Your task to perform on an android device: turn on showing notifications on the lock screen Image 0: 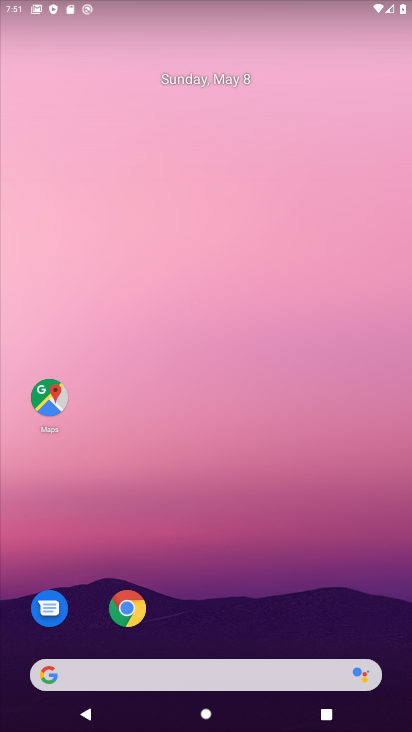
Step 0: drag from (306, 485) to (364, 212)
Your task to perform on an android device: turn on showing notifications on the lock screen Image 1: 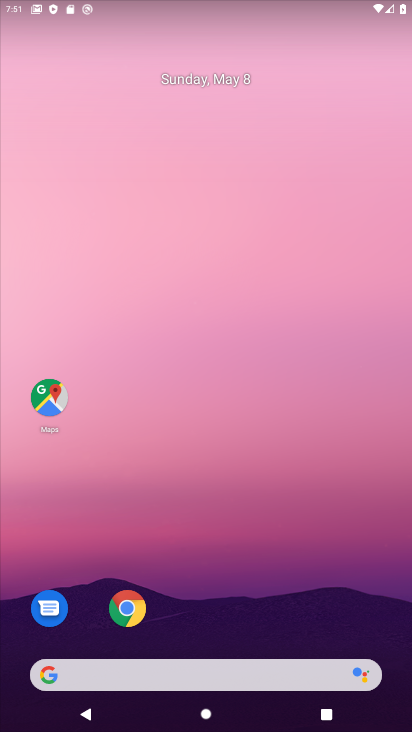
Step 1: drag from (237, 636) to (260, 278)
Your task to perform on an android device: turn on showing notifications on the lock screen Image 2: 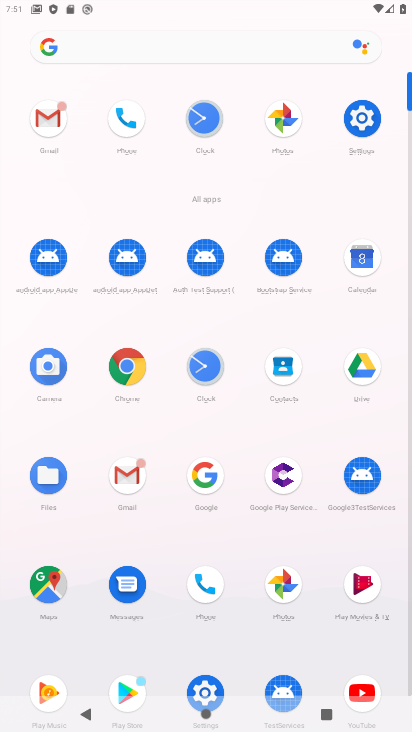
Step 2: click (360, 117)
Your task to perform on an android device: turn on showing notifications on the lock screen Image 3: 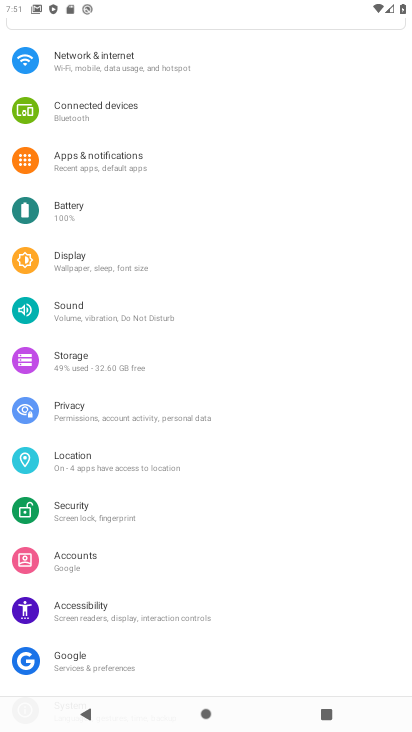
Step 3: click (153, 151)
Your task to perform on an android device: turn on showing notifications on the lock screen Image 4: 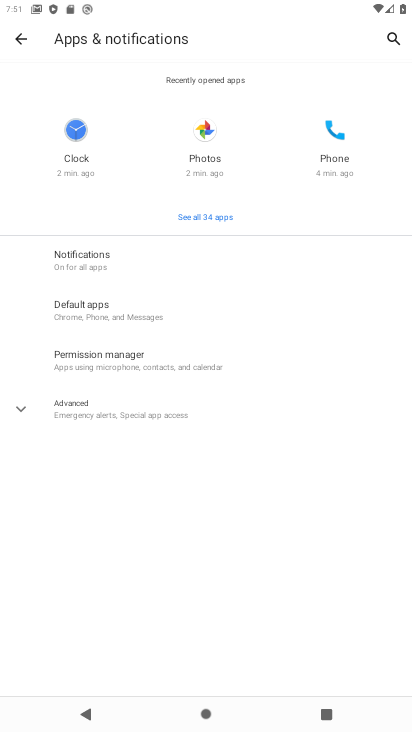
Step 4: click (107, 256)
Your task to perform on an android device: turn on showing notifications on the lock screen Image 5: 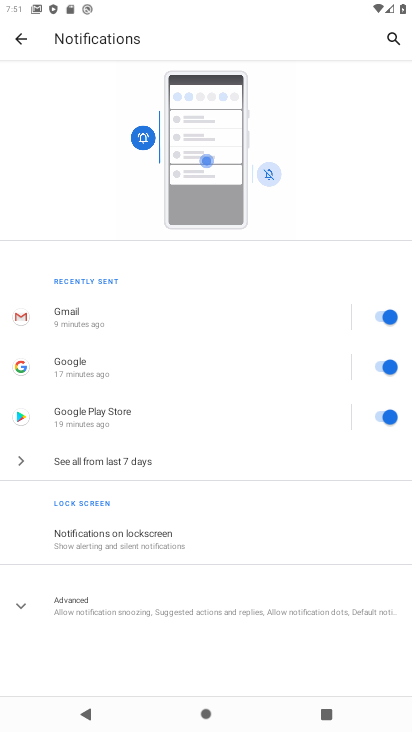
Step 5: click (191, 548)
Your task to perform on an android device: turn on showing notifications on the lock screen Image 6: 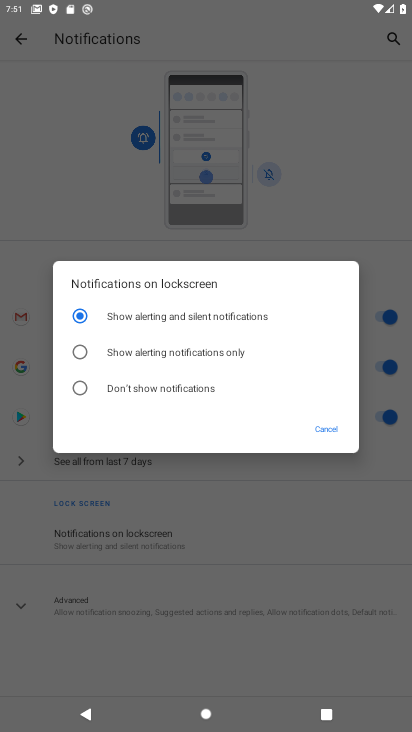
Step 6: click (140, 347)
Your task to perform on an android device: turn on showing notifications on the lock screen Image 7: 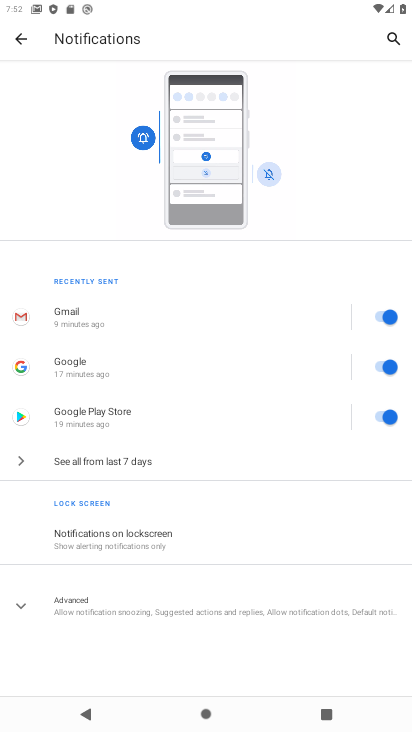
Step 7: task complete